Your task to perform on an android device: Open Amazon Image 0: 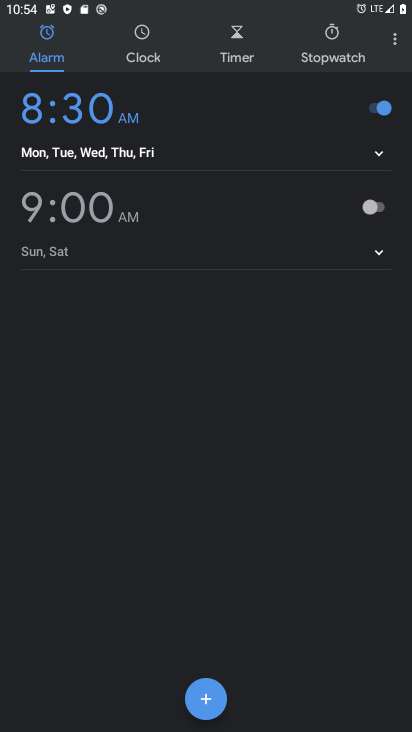
Step 0: press home button
Your task to perform on an android device: Open Amazon Image 1: 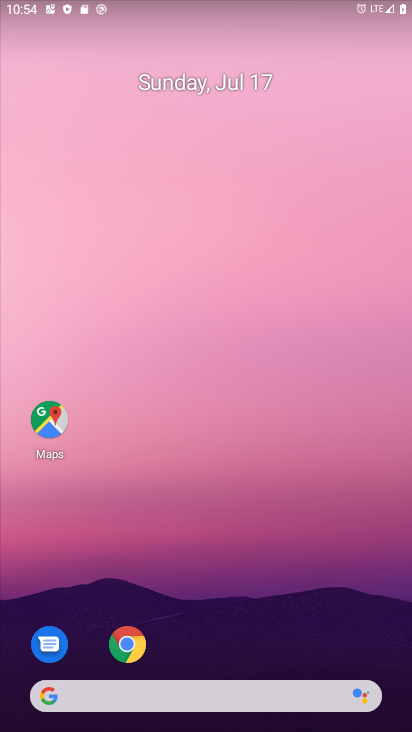
Step 1: drag from (393, 564) to (395, 26)
Your task to perform on an android device: Open Amazon Image 2: 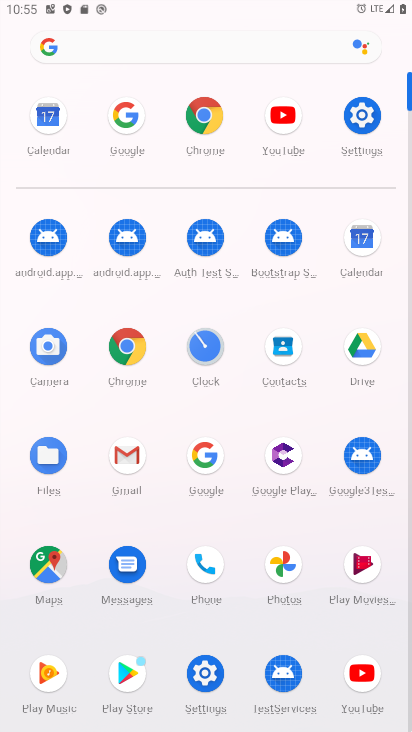
Step 2: click (194, 115)
Your task to perform on an android device: Open Amazon Image 3: 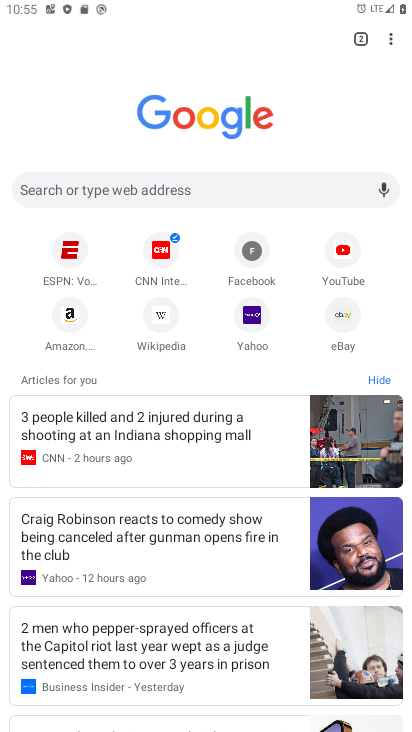
Step 3: click (70, 326)
Your task to perform on an android device: Open Amazon Image 4: 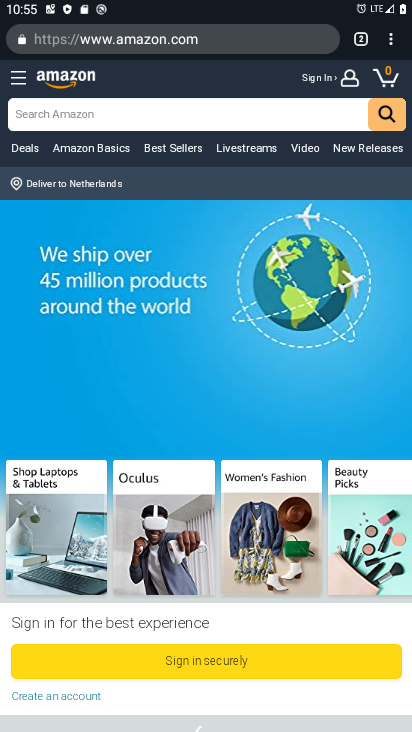
Step 4: task complete